Your task to perform on an android device: turn on sleep mode Image 0: 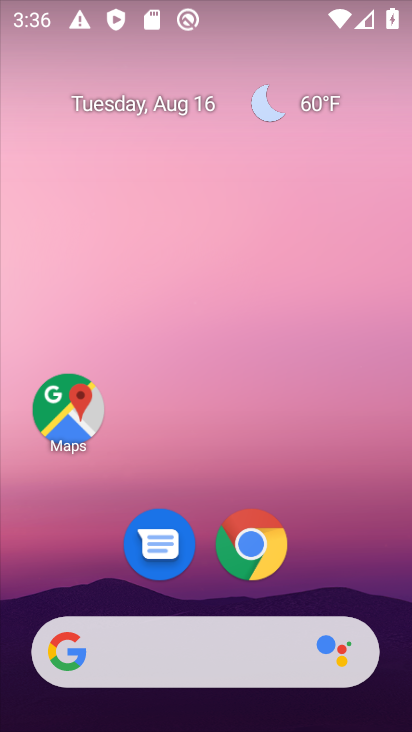
Step 0: drag from (408, 554) to (198, 21)
Your task to perform on an android device: turn on sleep mode Image 1: 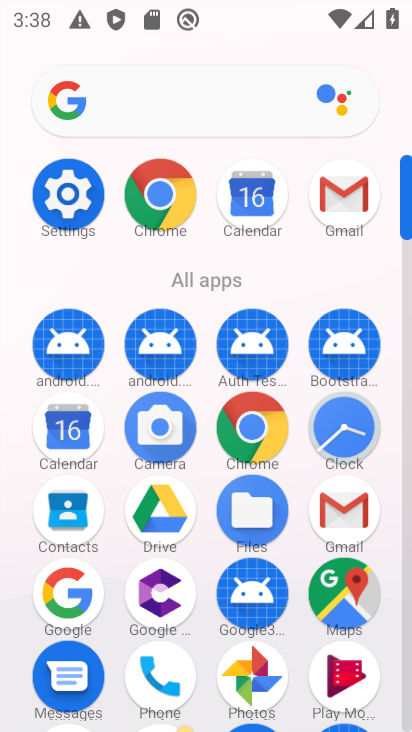
Step 1: click (57, 195)
Your task to perform on an android device: turn on sleep mode Image 2: 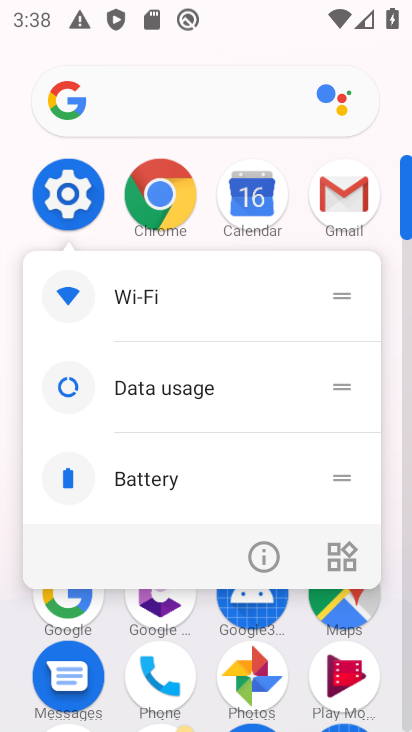
Step 2: click (61, 209)
Your task to perform on an android device: turn on sleep mode Image 3: 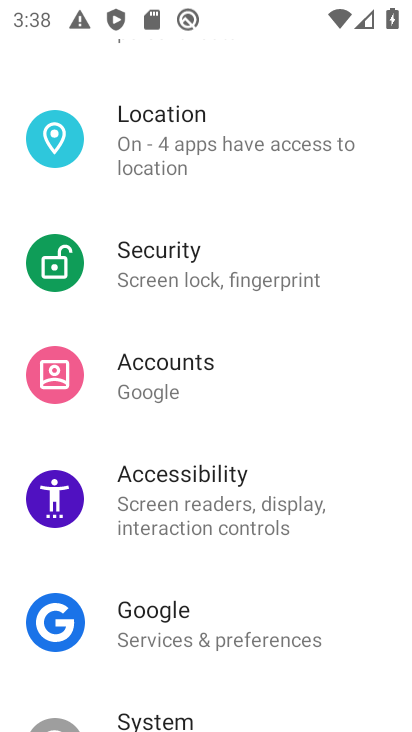
Step 3: task complete